Your task to perform on an android device: Search for vegetarian restaurants on Maps Image 0: 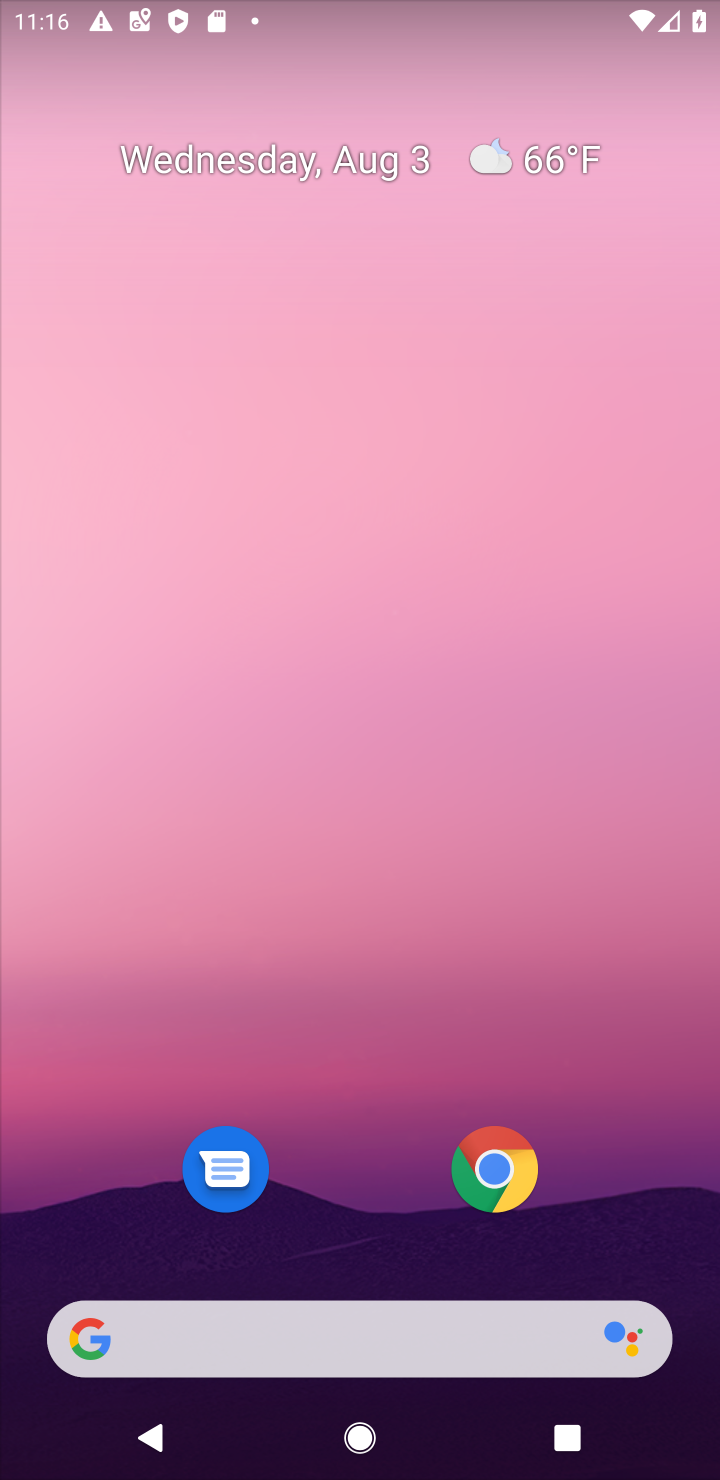
Step 0: drag from (365, 1099) to (404, 24)
Your task to perform on an android device: Search for vegetarian restaurants on Maps Image 1: 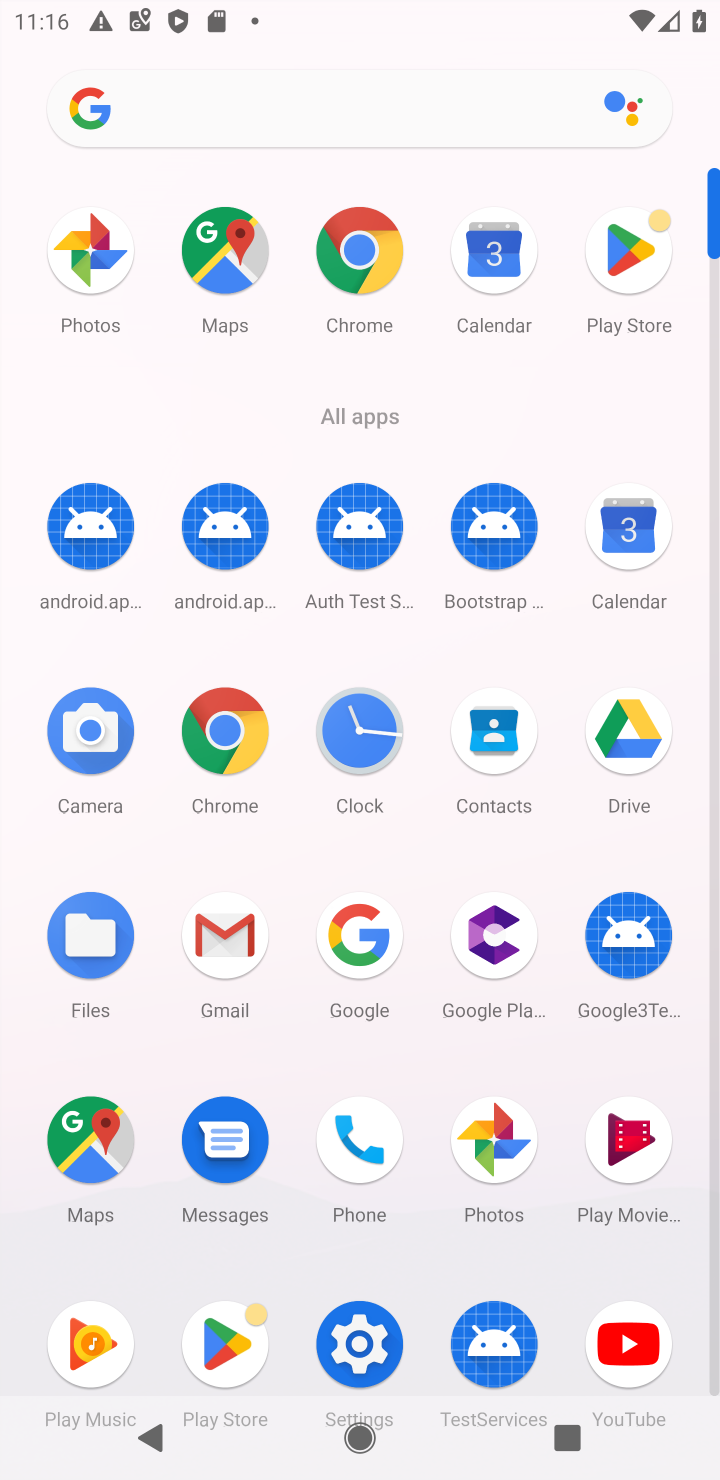
Step 1: click (222, 405)
Your task to perform on an android device: Search for vegetarian restaurants on Maps Image 2: 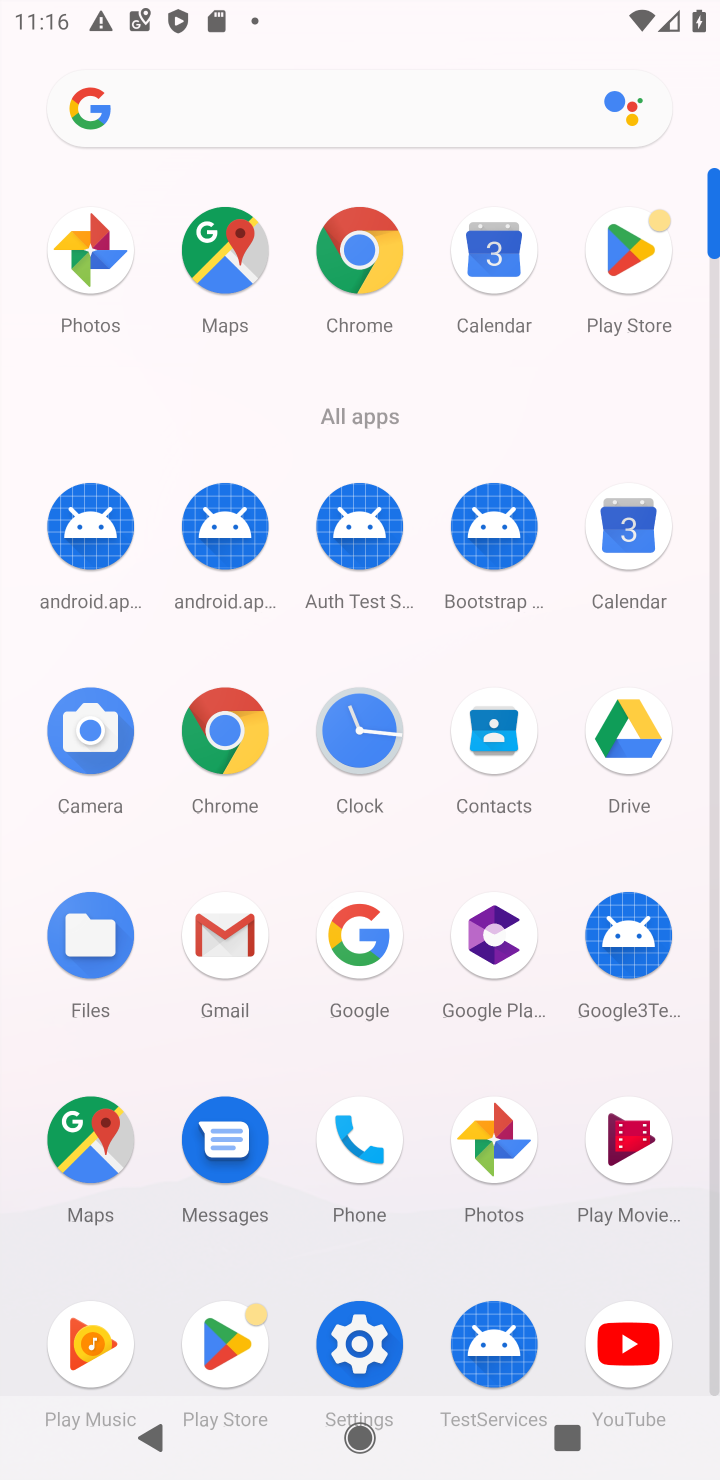
Step 2: click (231, 257)
Your task to perform on an android device: Search for vegetarian restaurants on Maps Image 3: 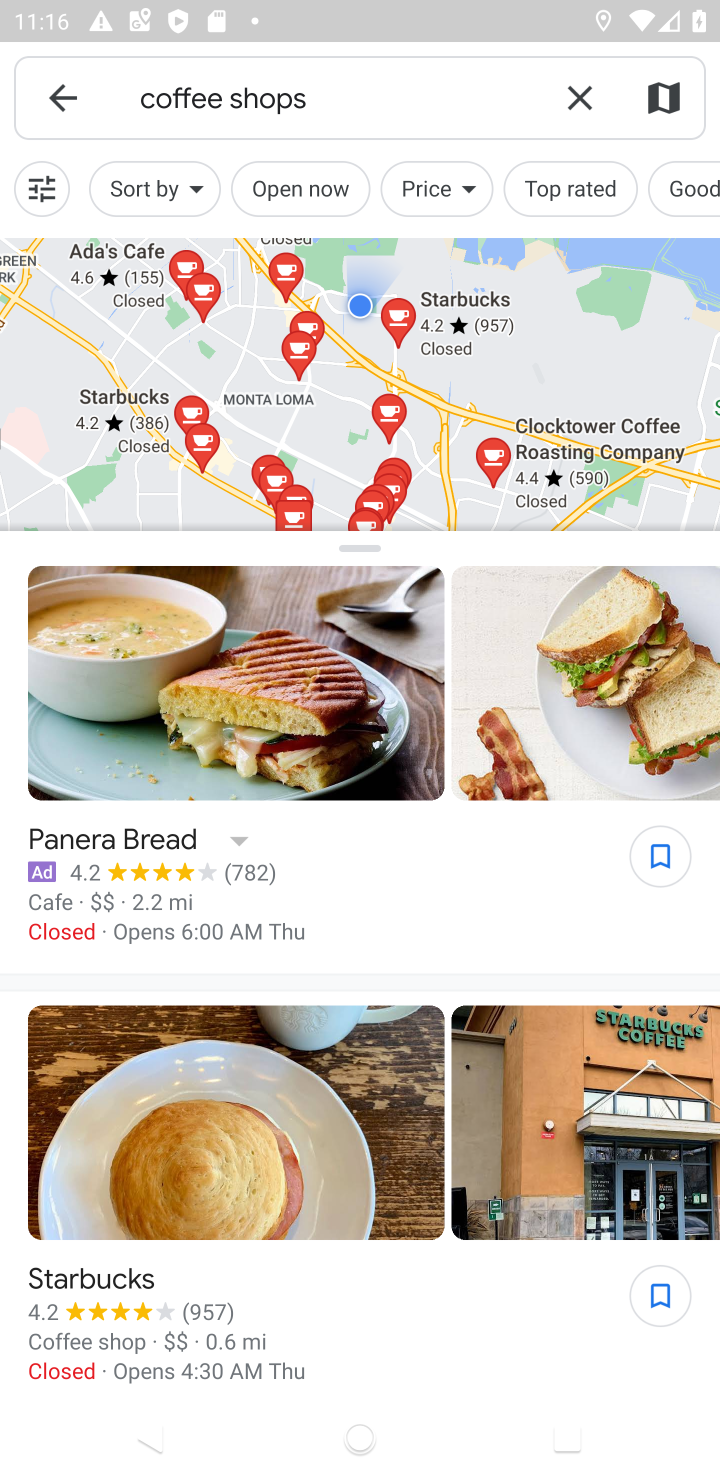
Step 3: click (592, 116)
Your task to perform on an android device: Search for vegetarian restaurants on Maps Image 4: 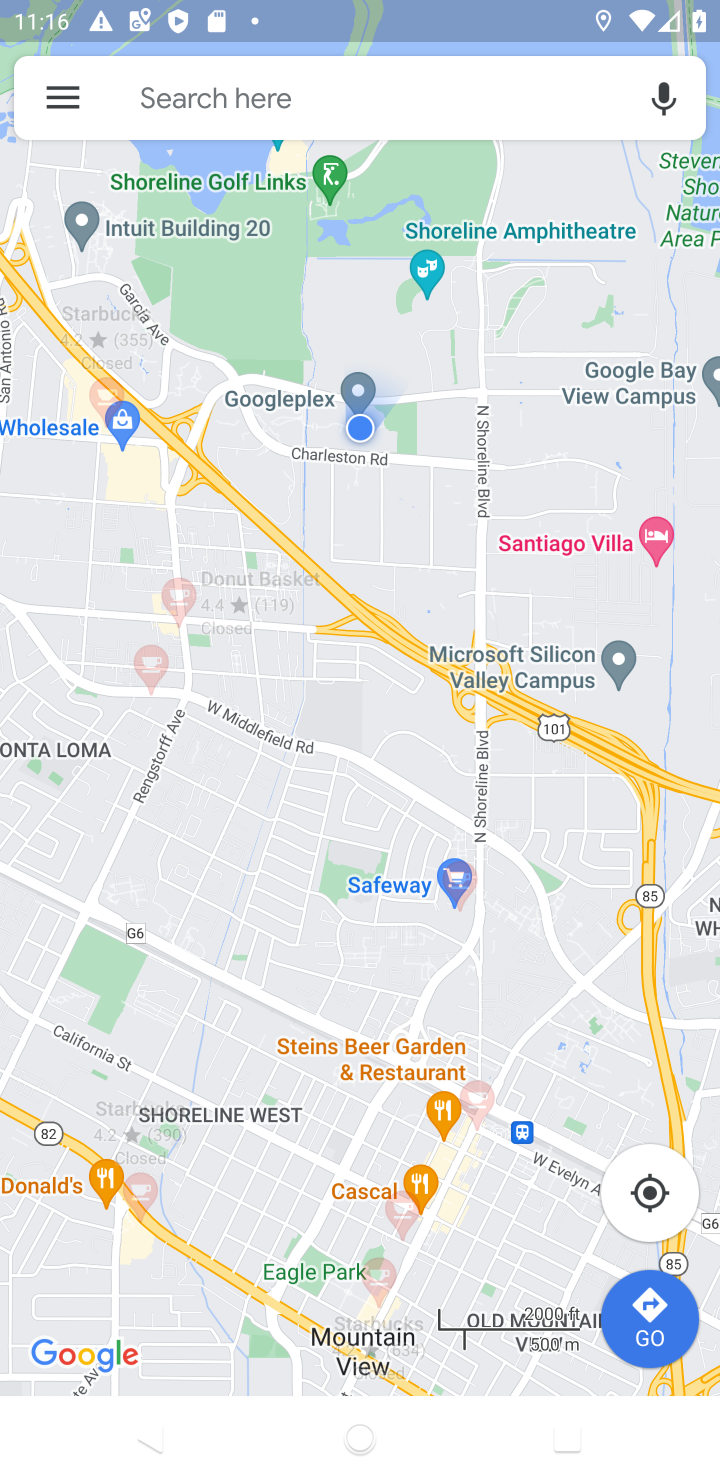
Step 4: click (268, 100)
Your task to perform on an android device: Search for vegetarian restaurants on Maps Image 5: 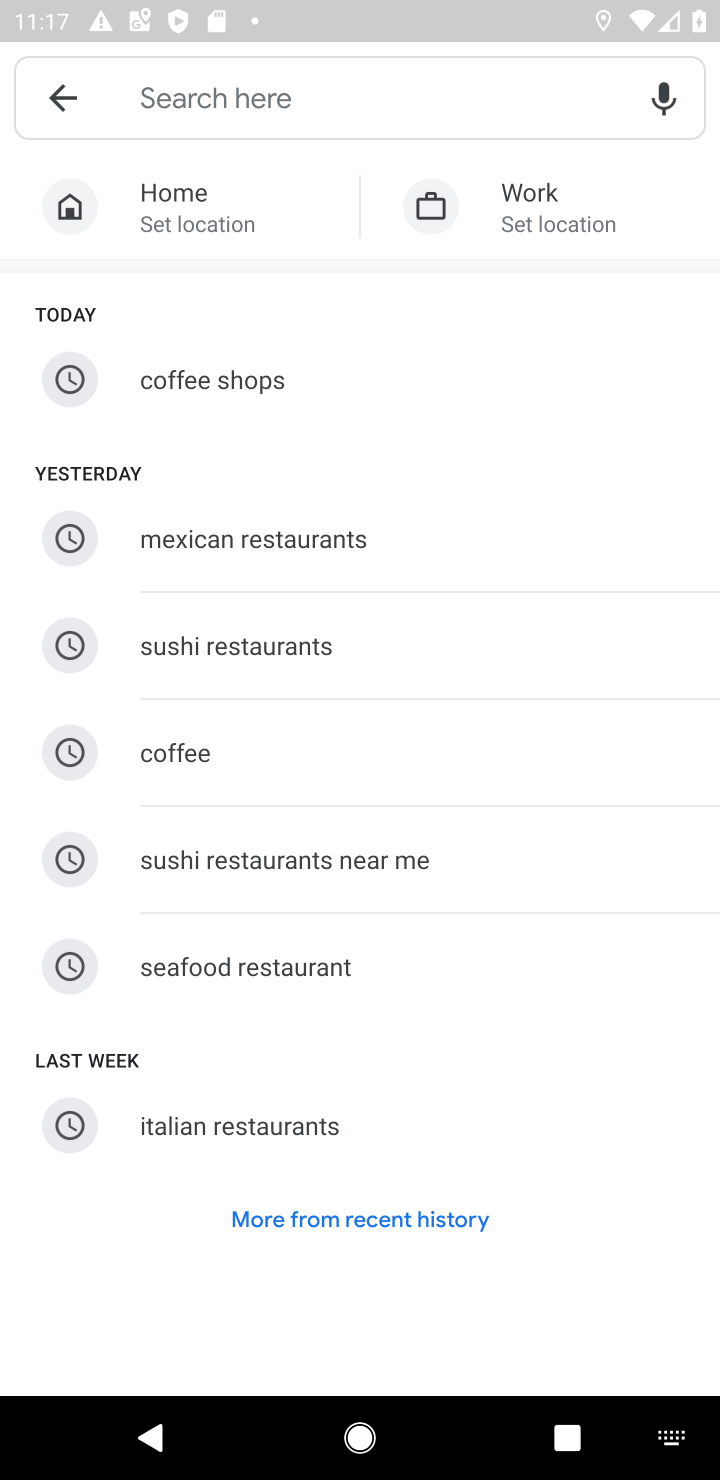
Step 5: click (170, 108)
Your task to perform on an android device: Search for vegetarian restaurants on Maps Image 6: 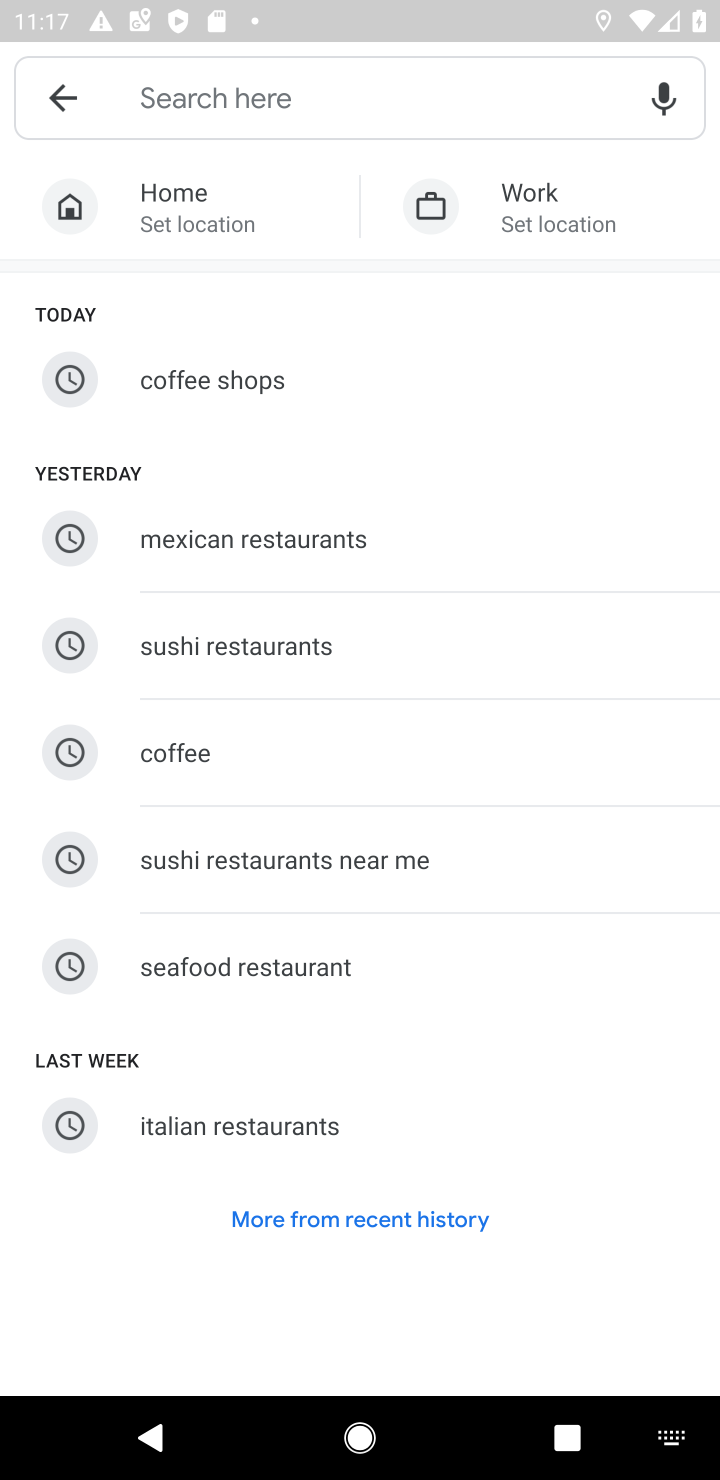
Step 6: type " vegetarian restaurants"
Your task to perform on an android device: Search for vegetarian restaurants on Maps Image 7: 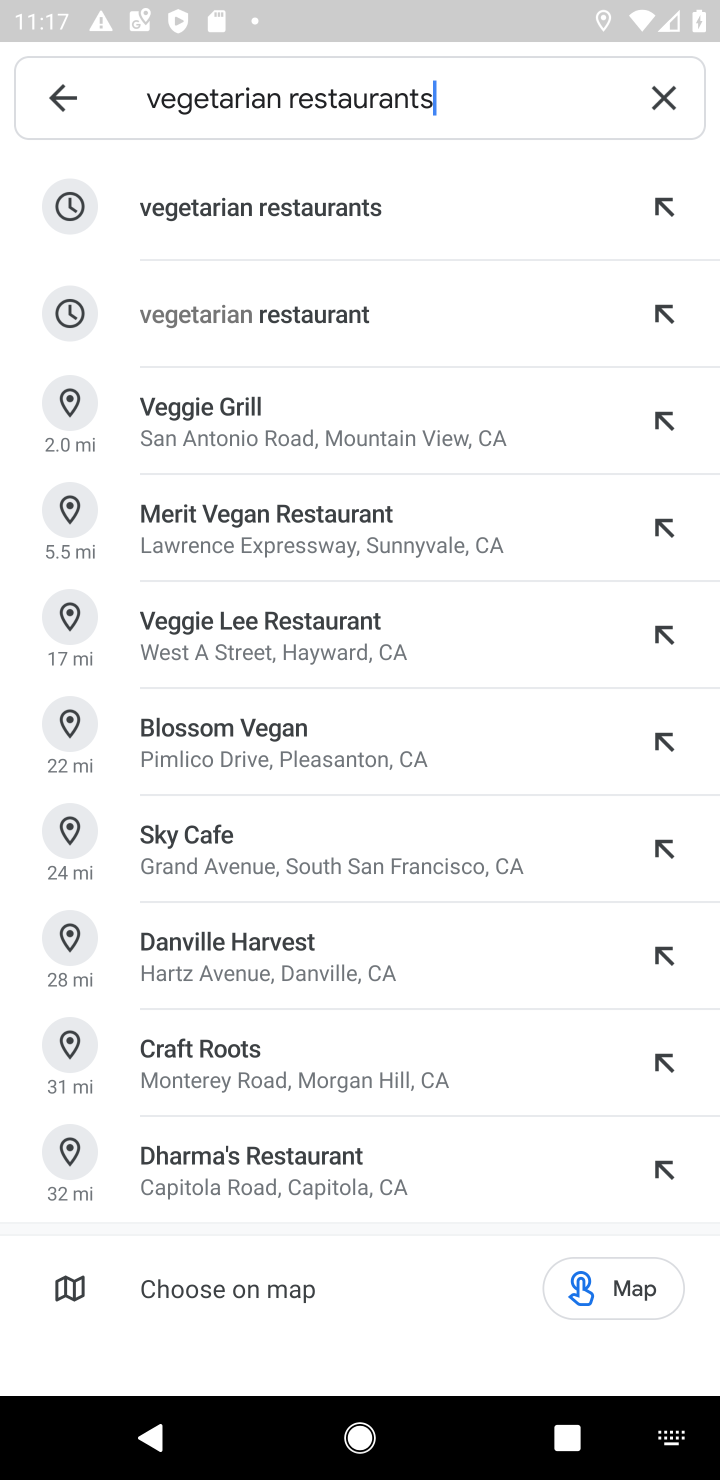
Step 7: click (265, 200)
Your task to perform on an android device: Search for vegetarian restaurants on Maps Image 8: 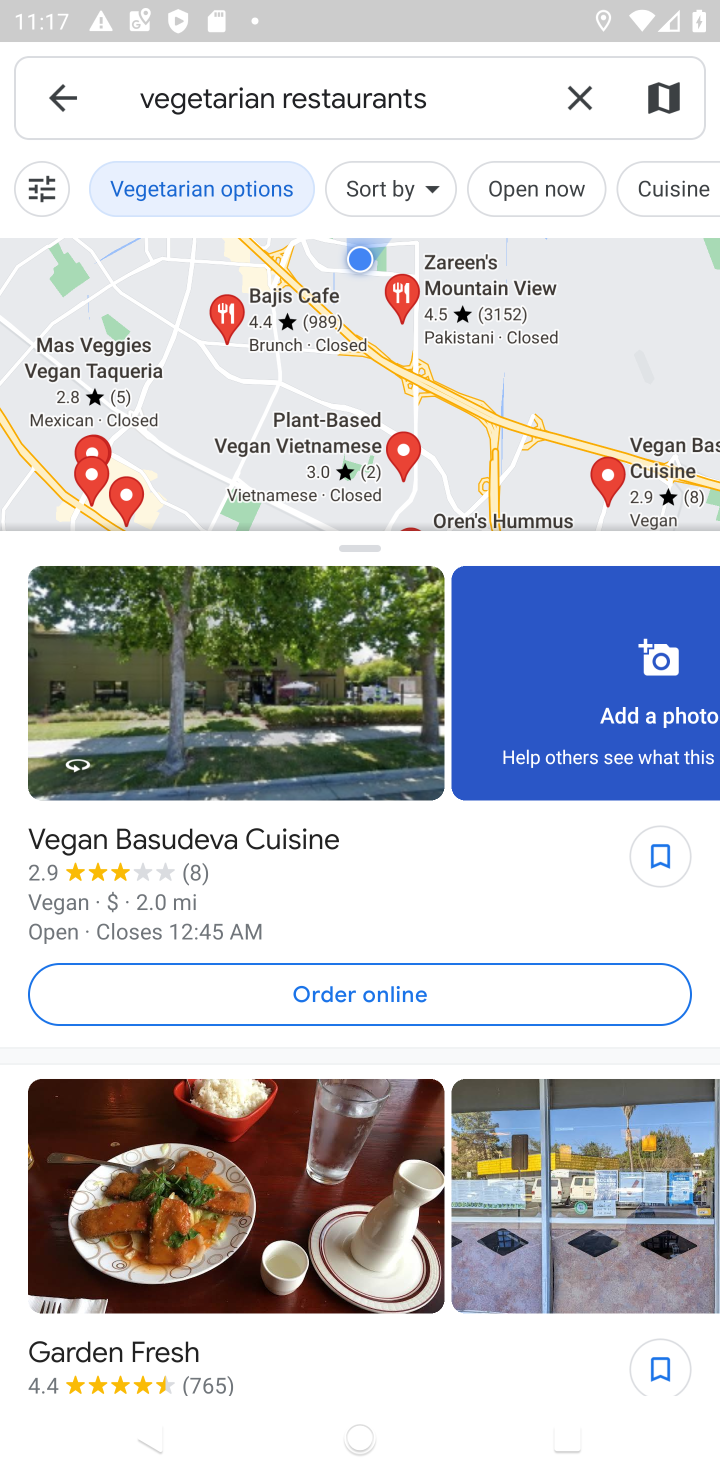
Step 8: task complete